Your task to perform on an android device: Go to battery settings Image 0: 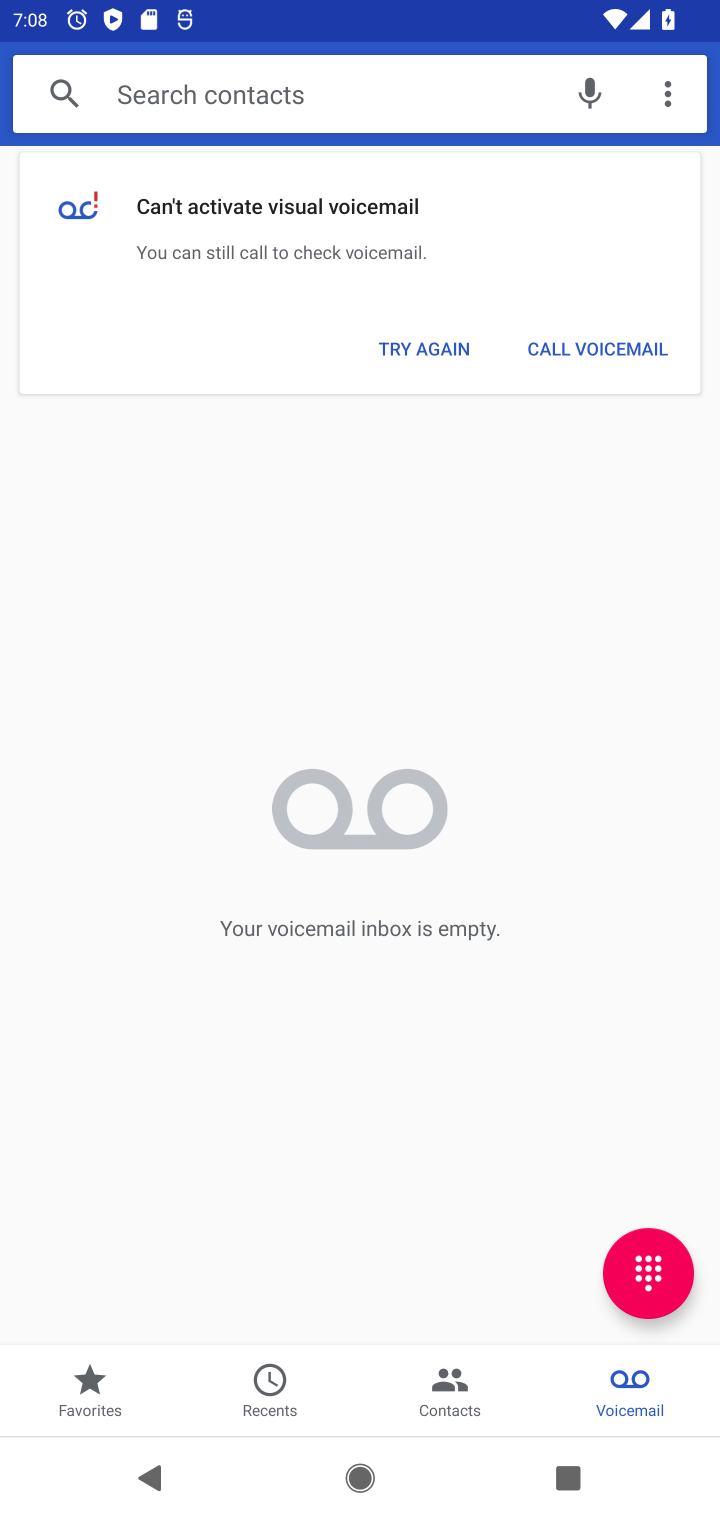
Step 0: press home button
Your task to perform on an android device: Go to battery settings Image 1: 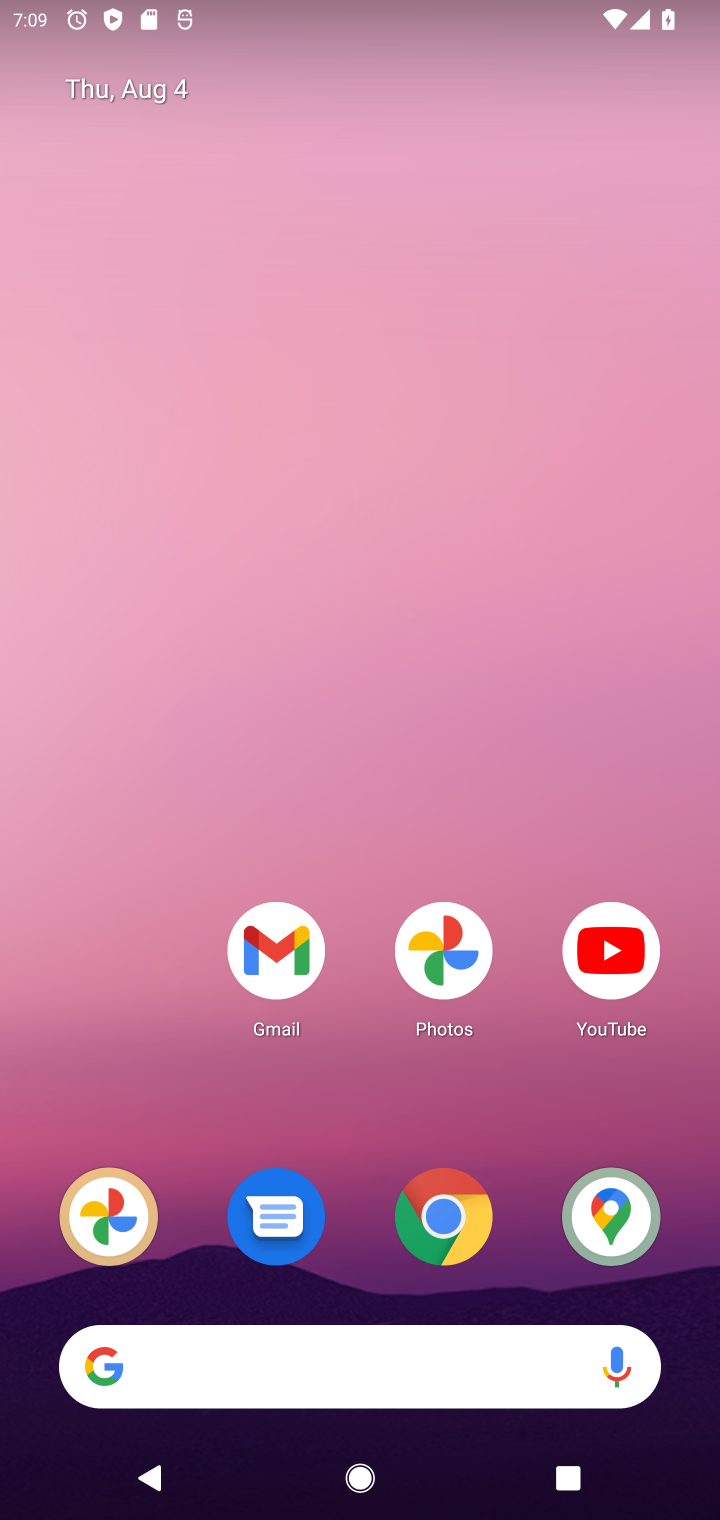
Step 1: drag from (417, 1100) to (460, 347)
Your task to perform on an android device: Go to battery settings Image 2: 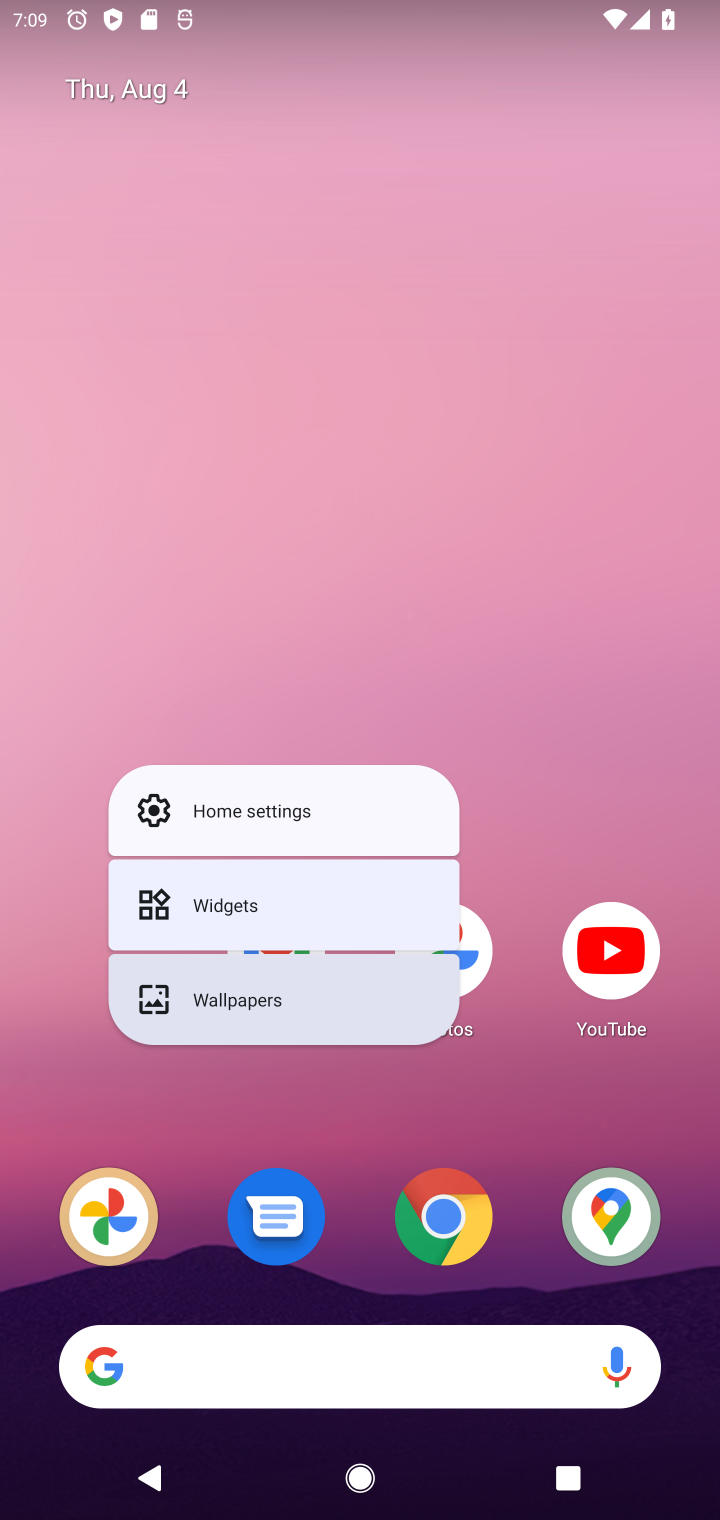
Step 2: click (582, 685)
Your task to perform on an android device: Go to battery settings Image 3: 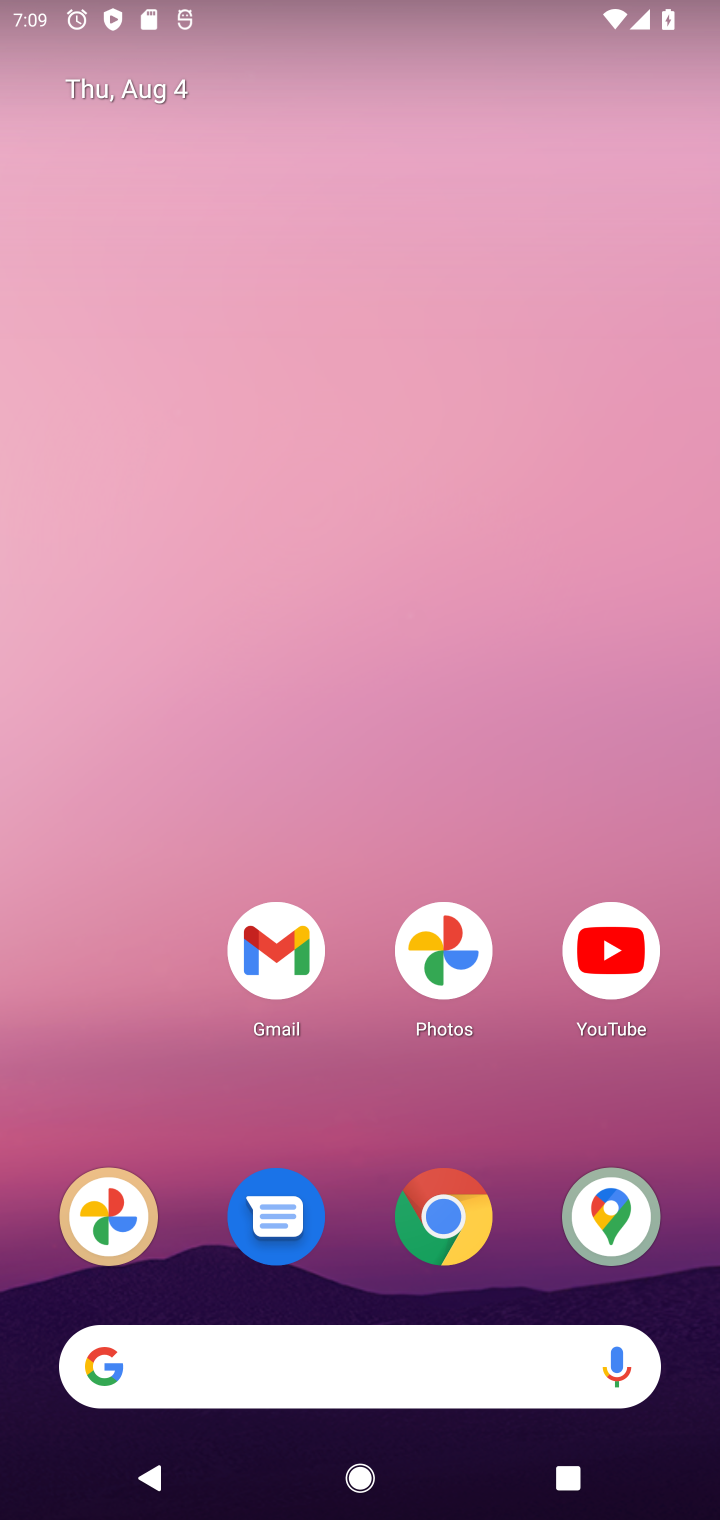
Step 3: drag from (509, 853) to (514, 292)
Your task to perform on an android device: Go to battery settings Image 4: 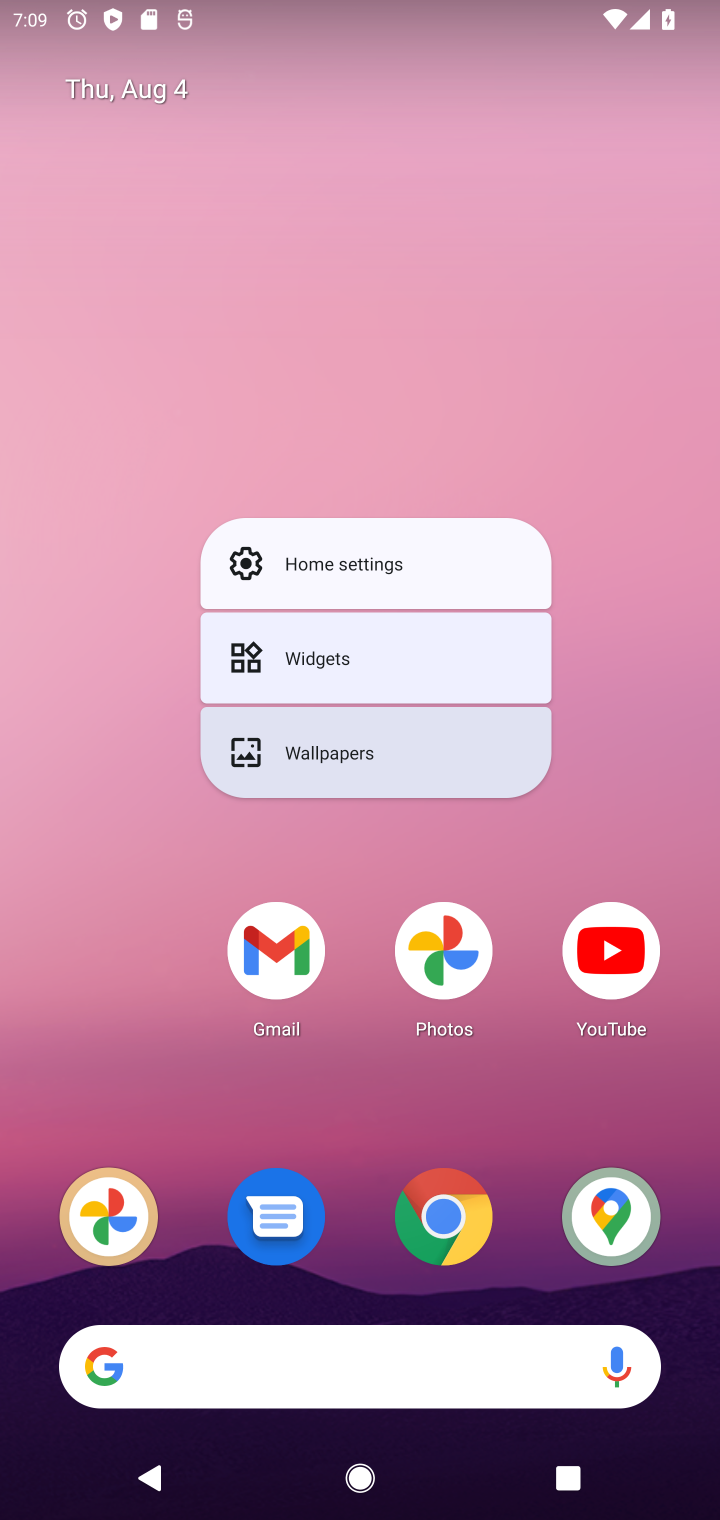
Step 4: click (690, 798)
Your task to perform on an android device: Go to battery settings Image 5: 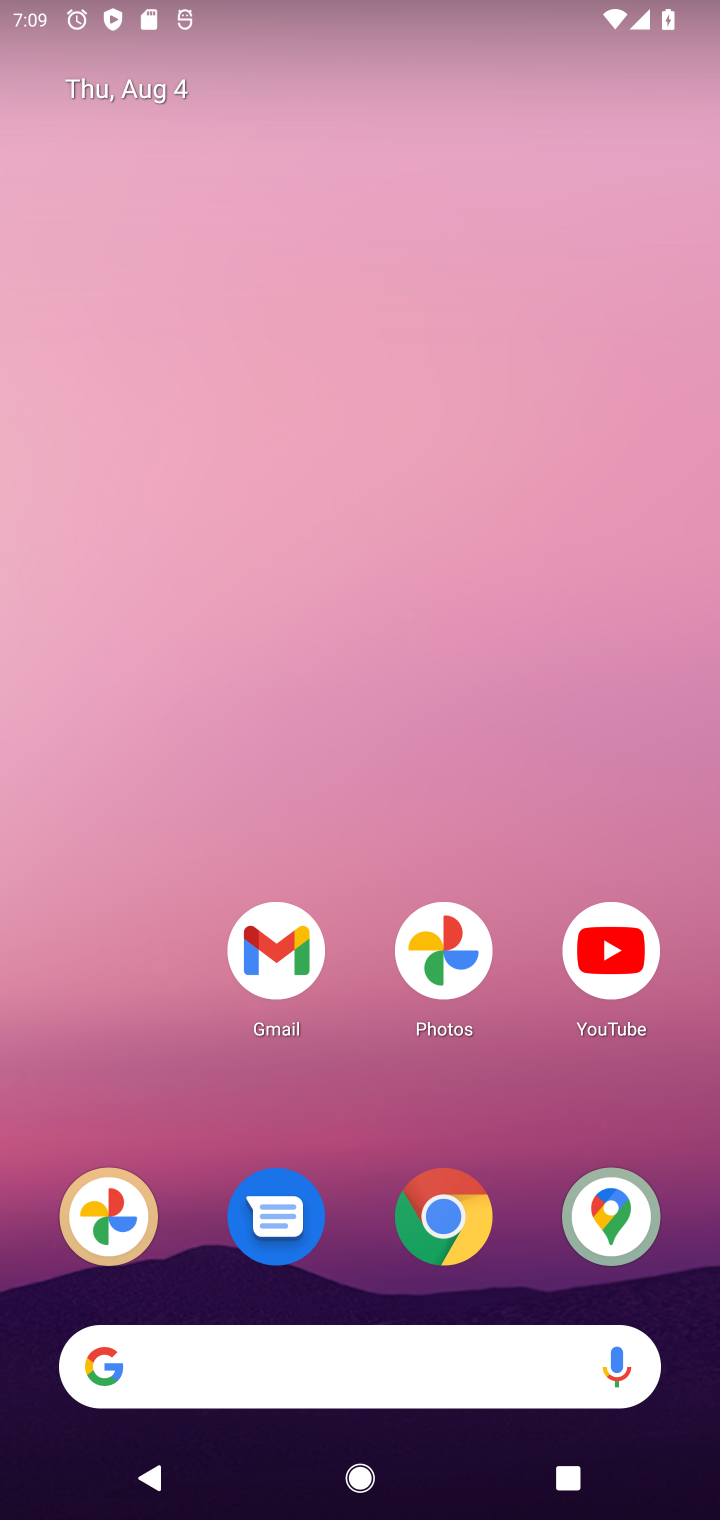
Step 5: drag from (373, 1151) to (381, 589)
Your task to perform on an android device: Go to battery settings Image 6: 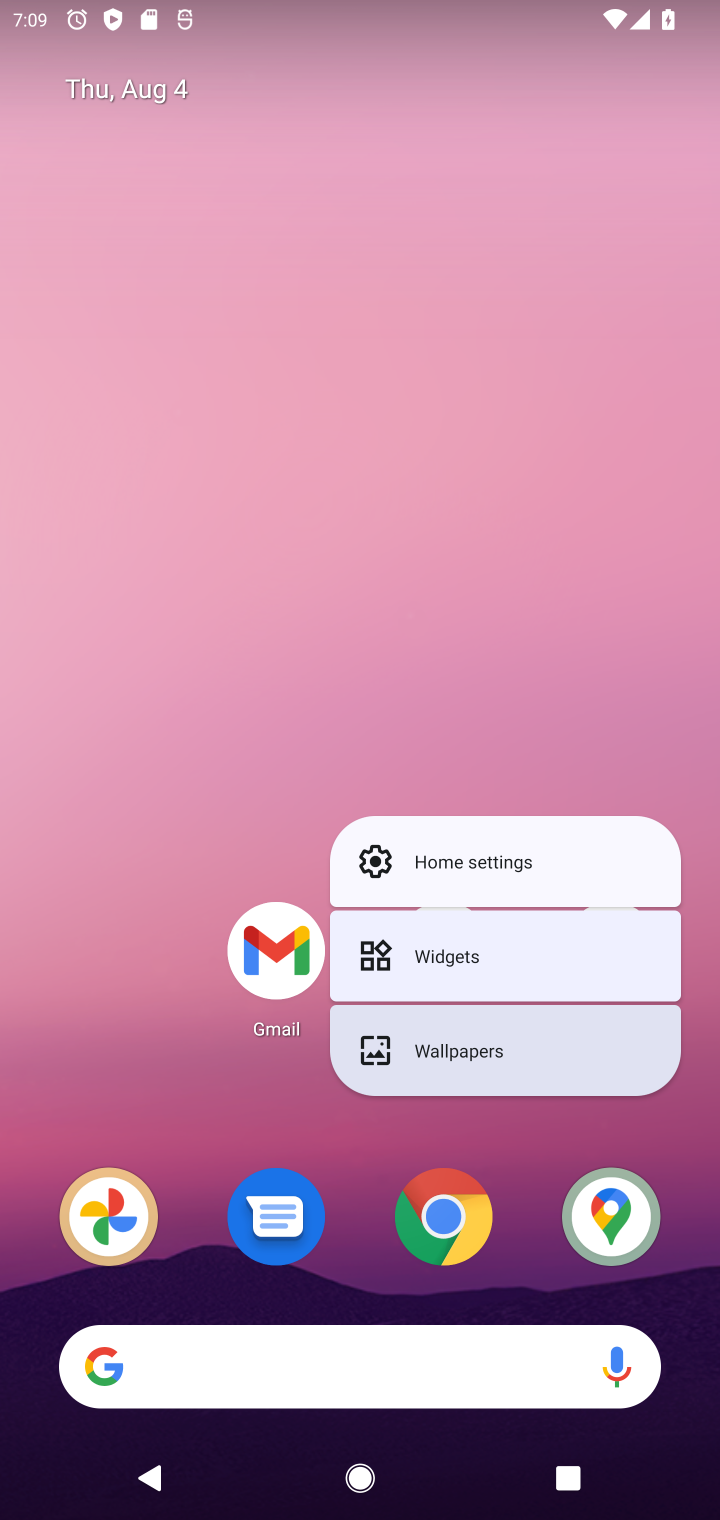
Step 6: click (348, 591)
Your task to perform on an android device: Go to battery settings Image 7: 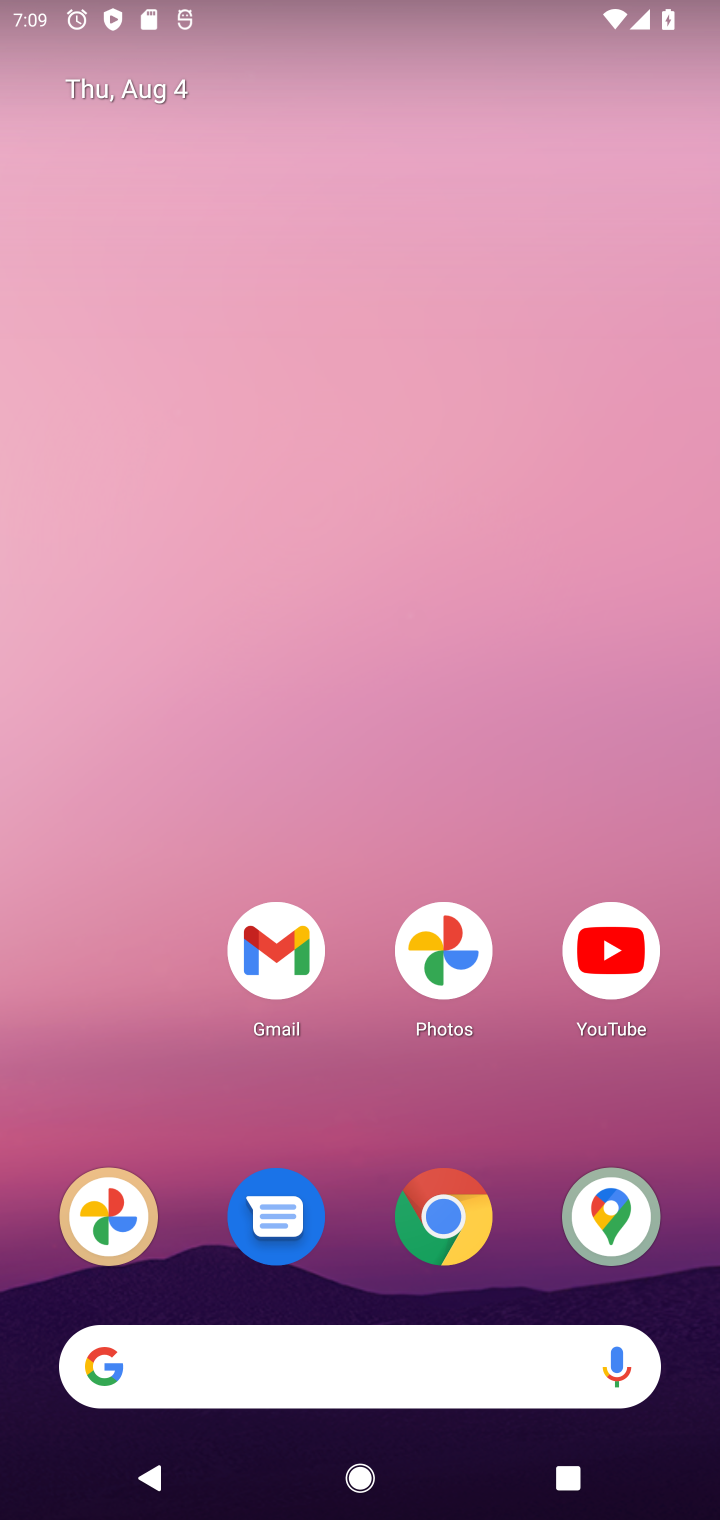
Step 7: drag from (371, 1141) to (444, 12)
Your task to perform on an android device: Go to battery settings Image 8: 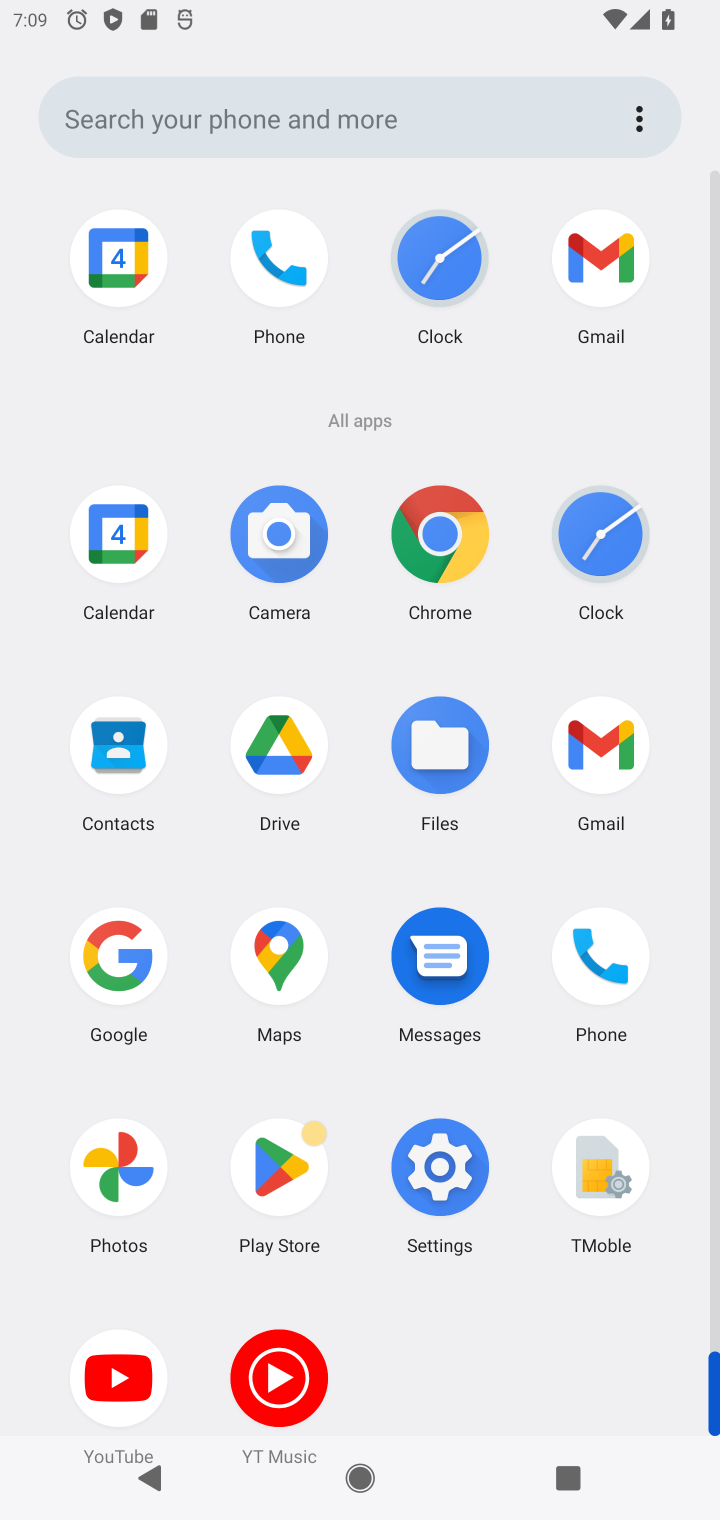
Step 8: click (468, 1174)
Your task to perform on an android device: Go to battery settings Image 9: 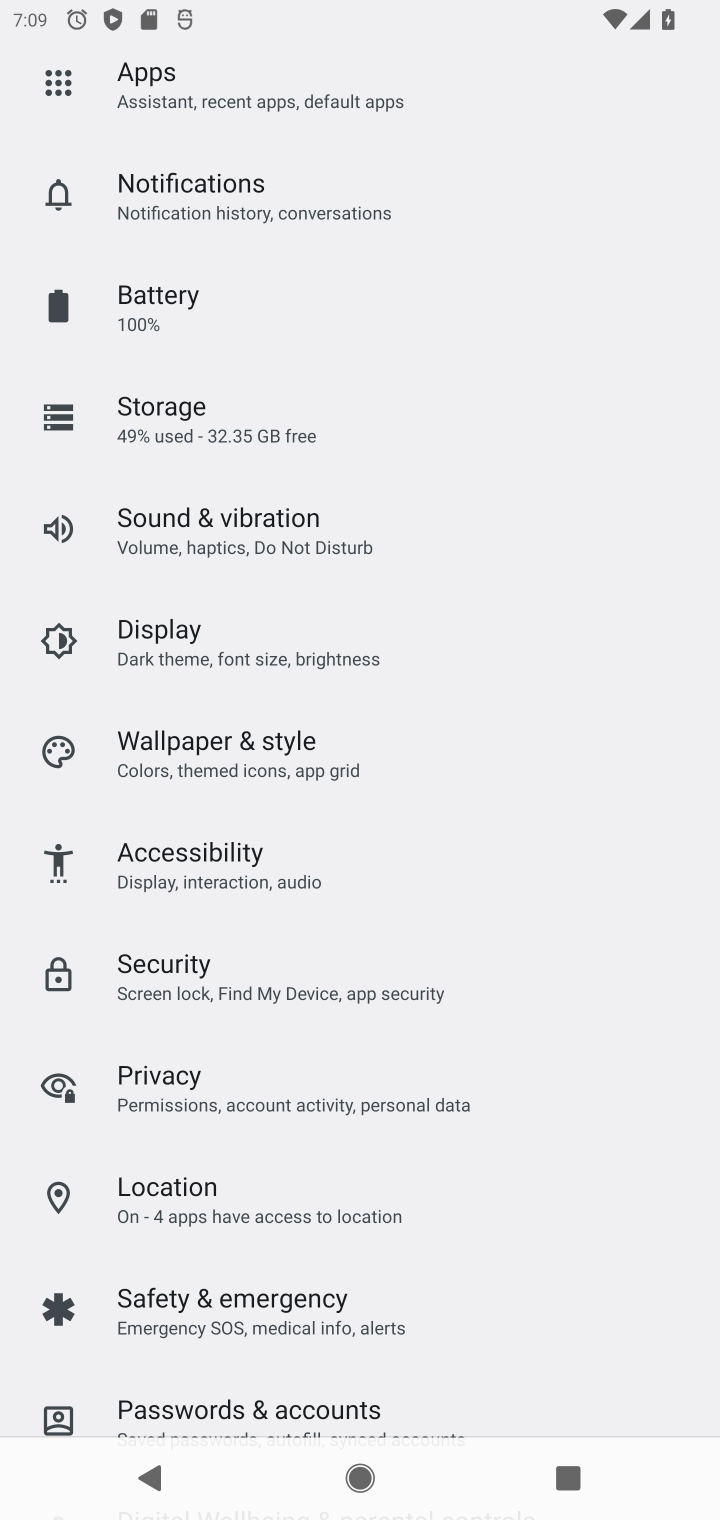
Step 9: click (205, 299)
Your task to perform on an android device: Go to battery settings Image 10: 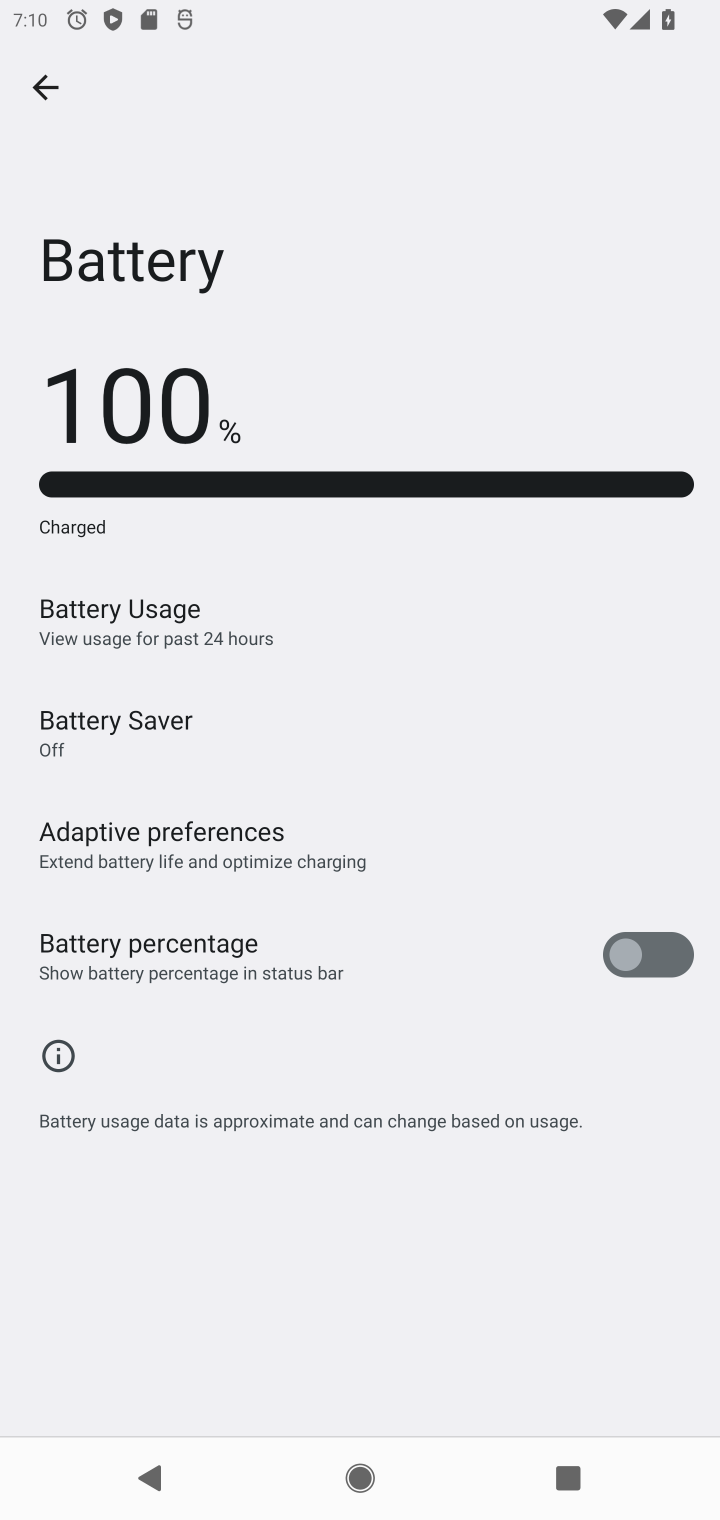
Step 10: task complete